Your task to perform on an android device: Go to wifi settings Image 0: 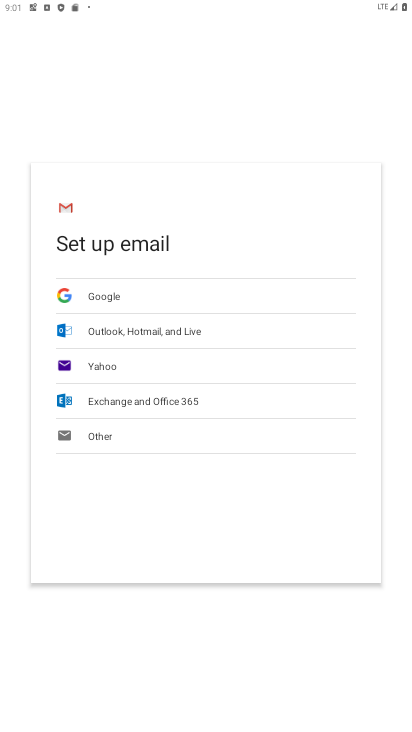
Step 0: drag from (112, 8) to (100, 726)
Your task to perform on an android device: Go to wifi settings Image 1: 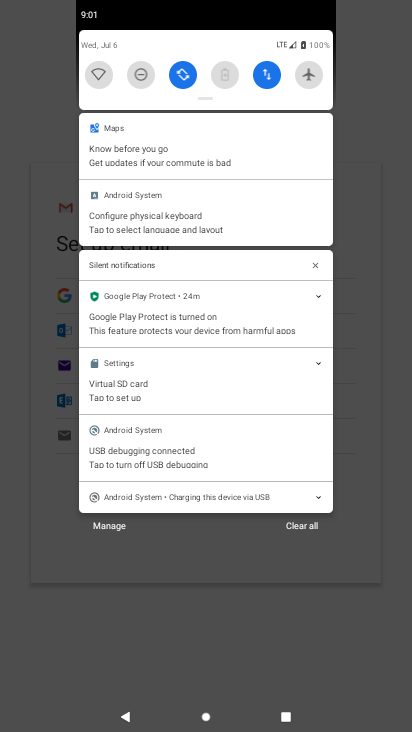
Step 1: click (101, 83)
Your task to perform on an android device: Go to wifi settings Image 2: 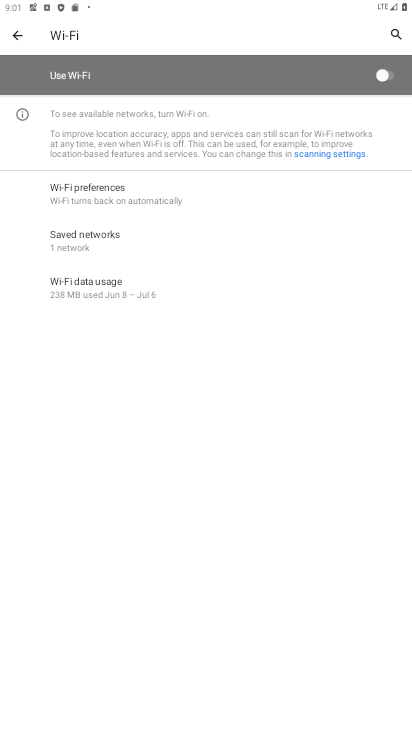
Step 2: task complete